Your task to perform on an android device: open wifi settings Image 0: 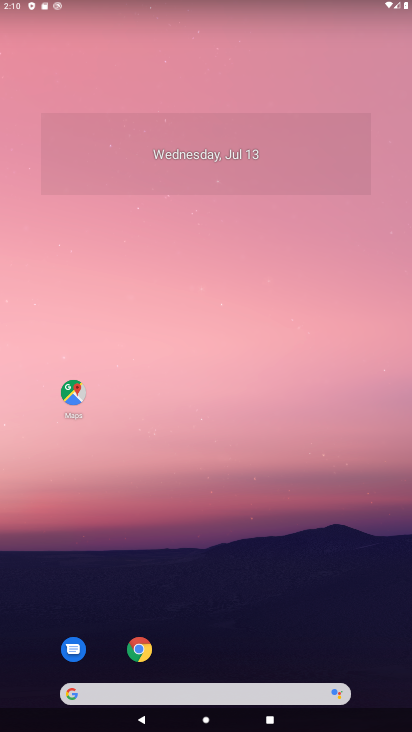
Step 0: drag from (212, 583) to (192, 134)
Your task to perform on an android device: open wifi settings Image 1: 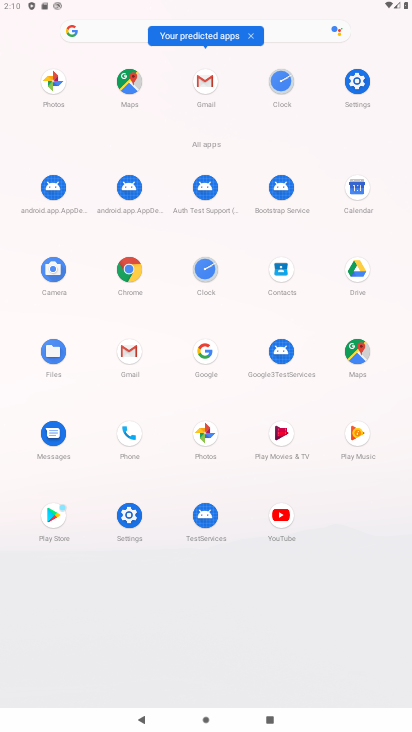
Step 1: click (352, 84)
Your task to perform on an android device: open wifi settings Image 2: 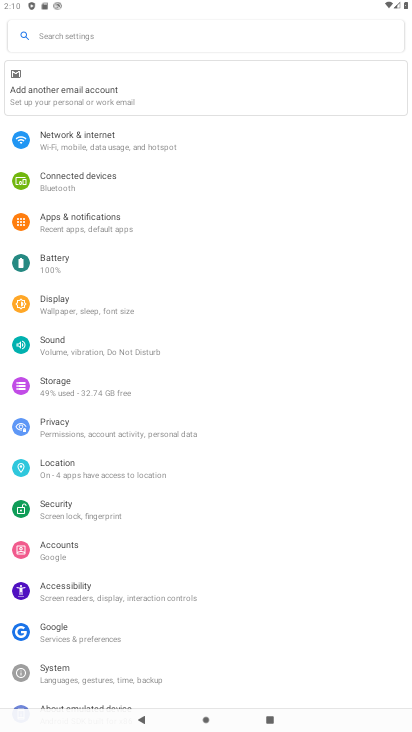
Step 2: click (85, 134)
Your task to perform on an android device: open wifi settings Image 3: 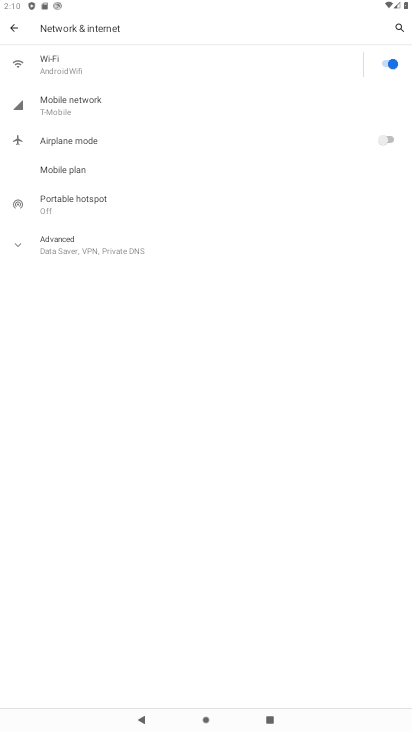
Step 3: click (143, 60)
Your task to perform on an android device: open wifi settings Image 4: 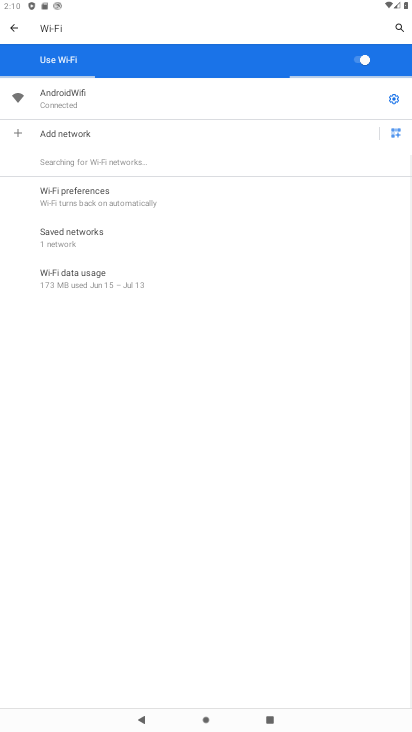
Step 4: task complete